Your task to perform on an android device: Open Chrome and go to the settings page Image 0: 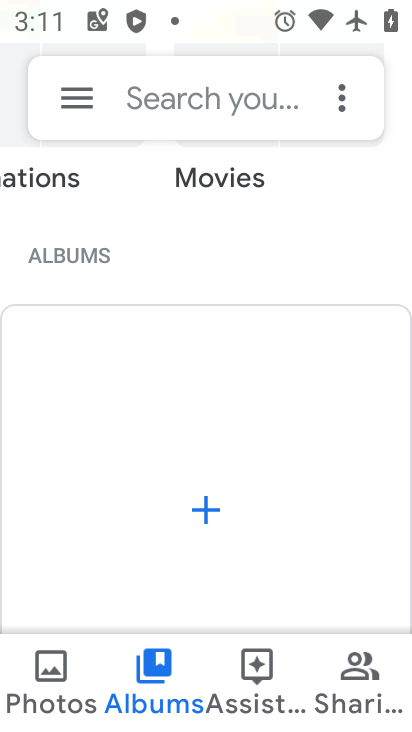
Step 0: press home button
Your task to perform on an android device: Open Chrome and go to the settings page Image 1: 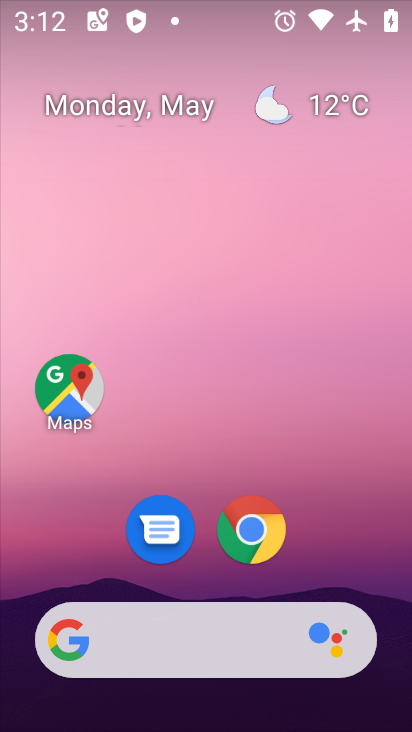
Step 1: click (255, 535)
Your task to perform on an android device: Open Chrome and go to the settings page Image 2: 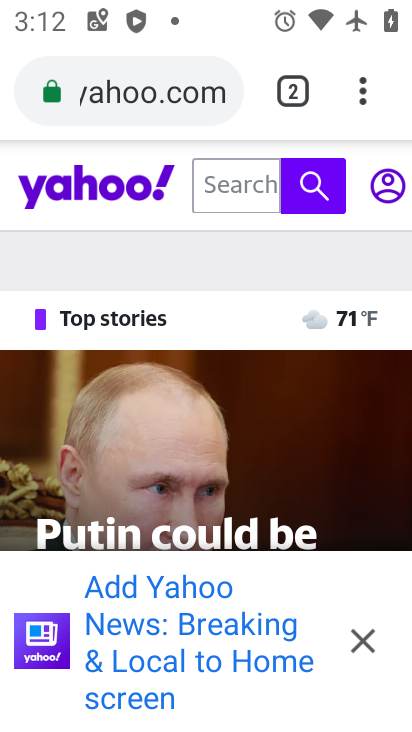
Step 2: click (350, 93)
Your task to perform on an android device: Open Chrome and go to the settings page Image 3: 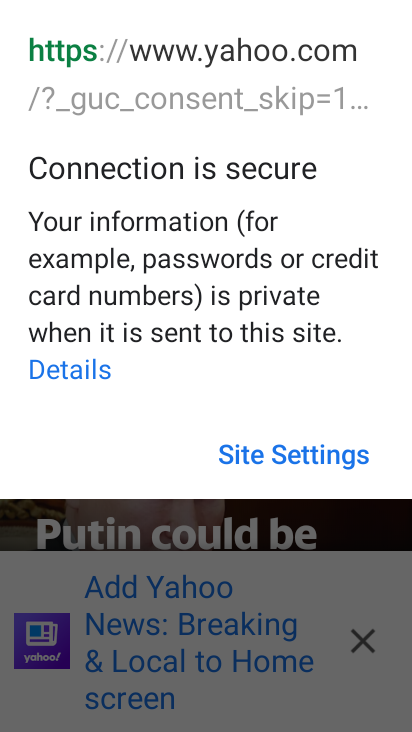
Step 3: click (312, 519)
Your task to perform on an android device: Open Chrome and go to the settings page Image 4: 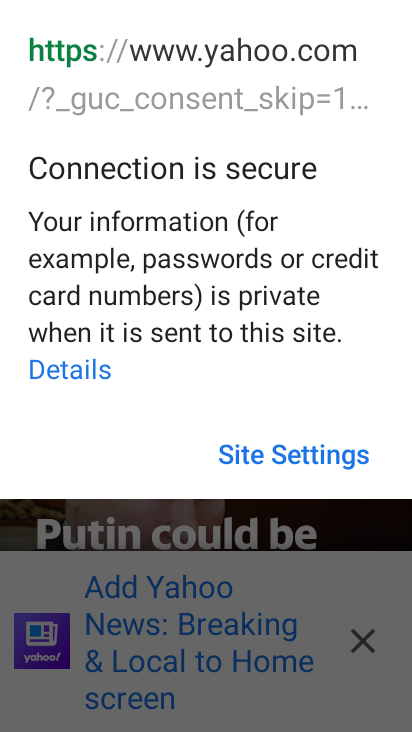
Step 4: click (290, 541)
Your task to perform on an android device: Open Chrome and go to the settings page Image 5: 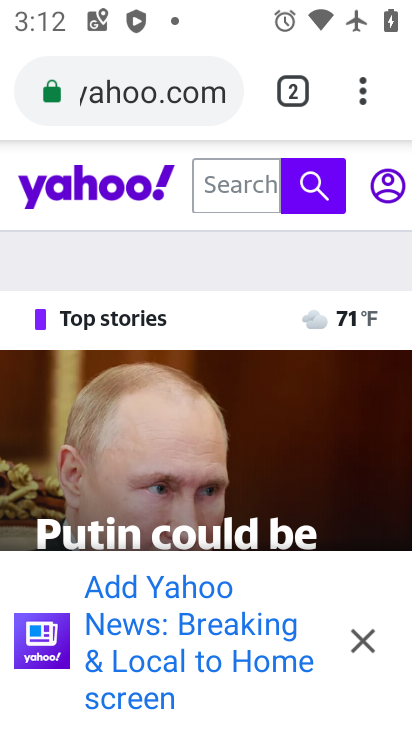
Step 5: click (377, 90)
Your task to perform on an android device: Open Chrome and go to the settings page Image 6: 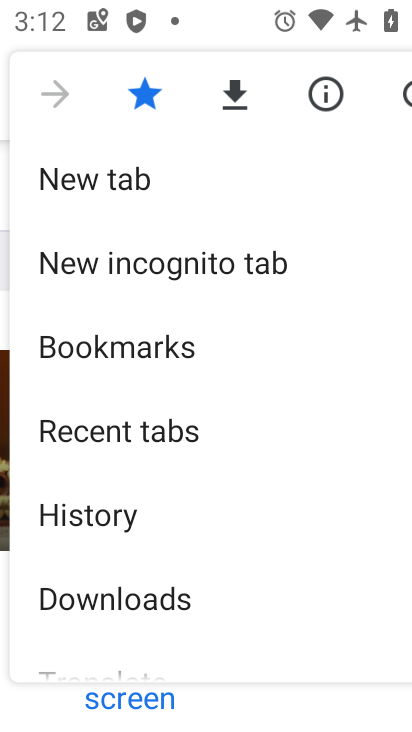
Step 6: drag from (208, 620) to (240, 328)
Your task to perform on an android device: Open Chrome and go to the settings page Image 7: 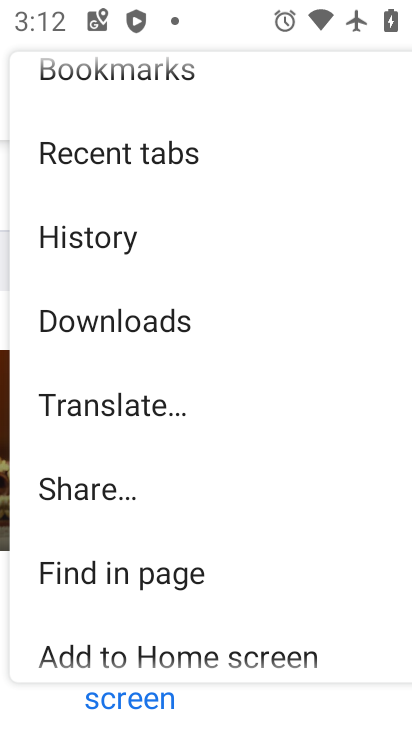
Step 7: drag from (172, 601) to (213, 312)
Your task to perform on an android device: Open Chrome and go to the settings page Image 8: 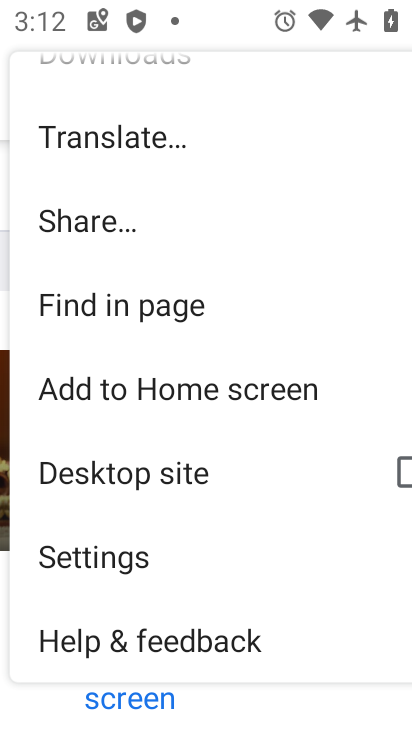
Step 8: click (124, 555)
Your task to perform on an android device: Open Chrome and go to the settings page Image 9: 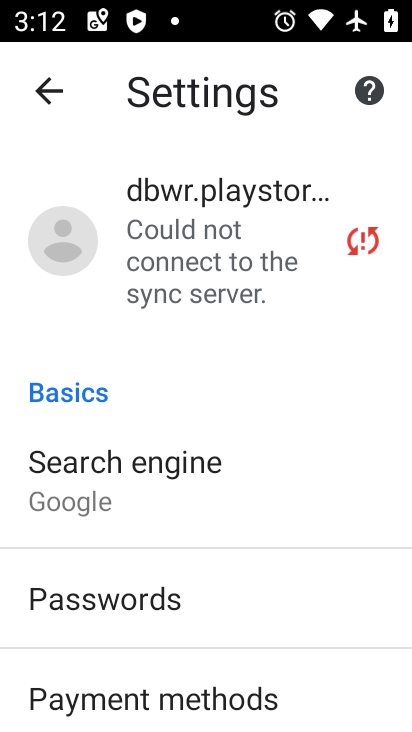
Step 9: task complete